Your task to perform on an android device: toggle notifications settings in the gmail app Image 0: 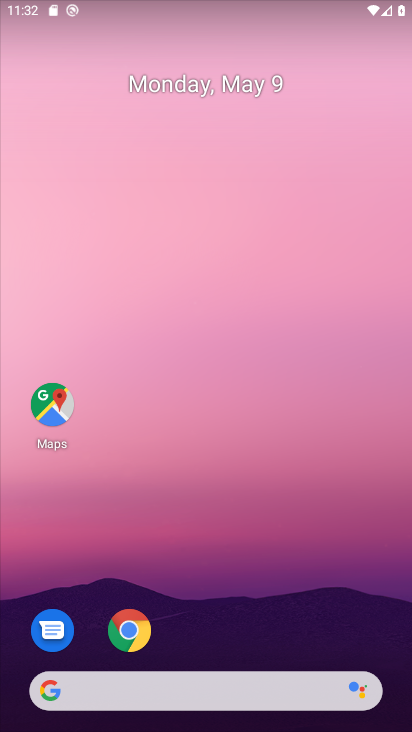
Step 0: drag from (244, 571) to (76, 107)
Your task to perform on an android device: toggle notifications settings in the gmail app Image 1: 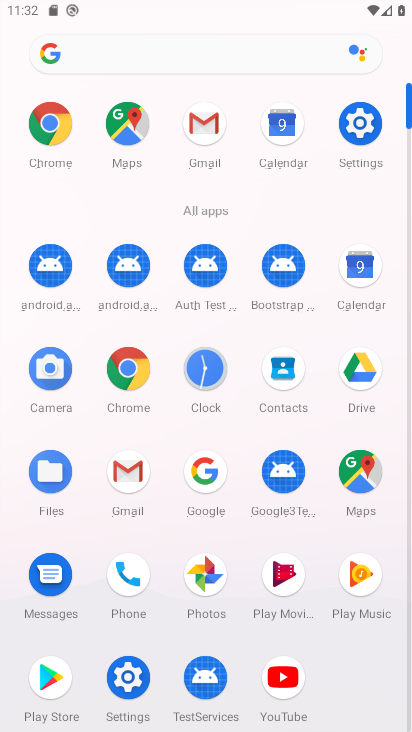
Step 1: click (201, 131)
Your task to perform on an android device: toggle notifications settings in the gmail app Image 2: 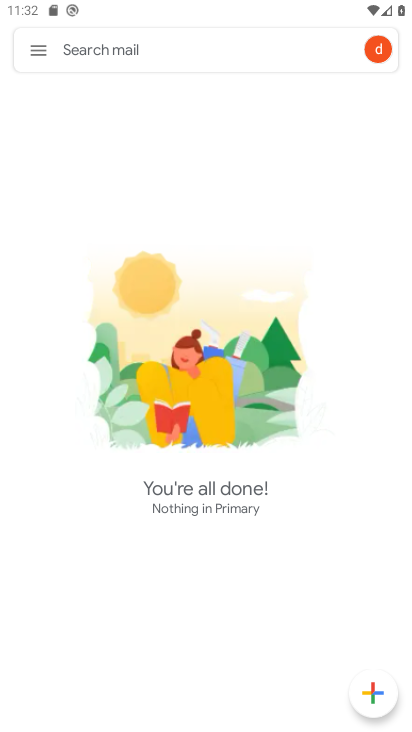
Step 2: click (38, 47)
Your task to perform on an android device: toggle notifications settings in the gmail app Image 3: 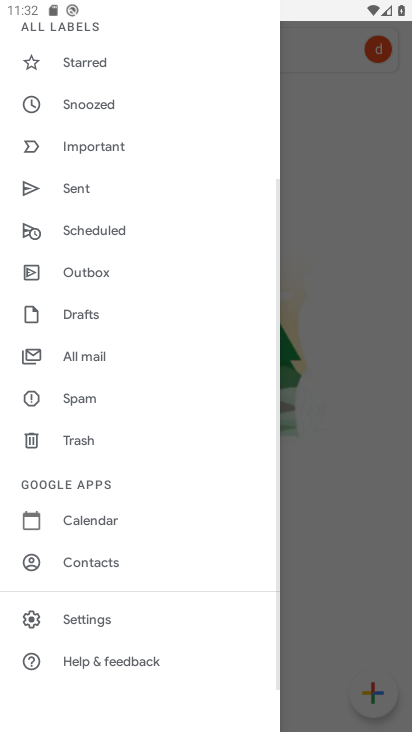
Step 3: click (86, 616)
Your task to perform on an android device: toggle notifications settings in the gmail app Image 4: 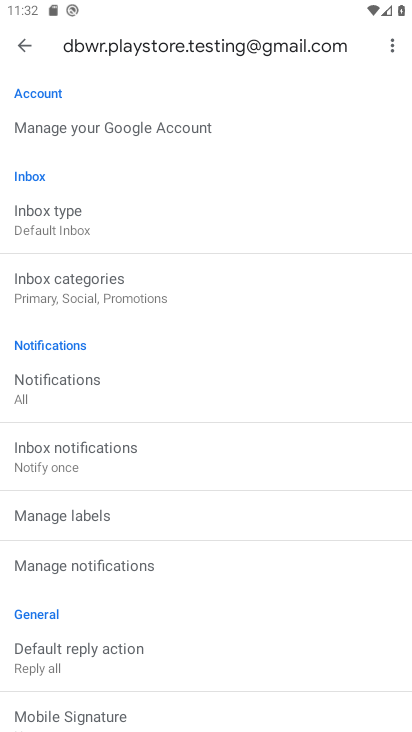
Step 4: click (100, 563)
Your task to perform on an android device: toggle notifications settings in the gmail app Image 5: 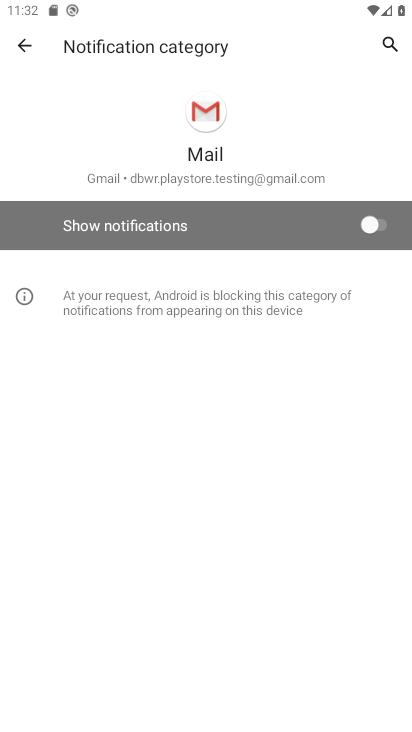
Step 5: click (381, 220)
Your task to perform on an android device: toggle notifications settings in the gmail app Image 6: 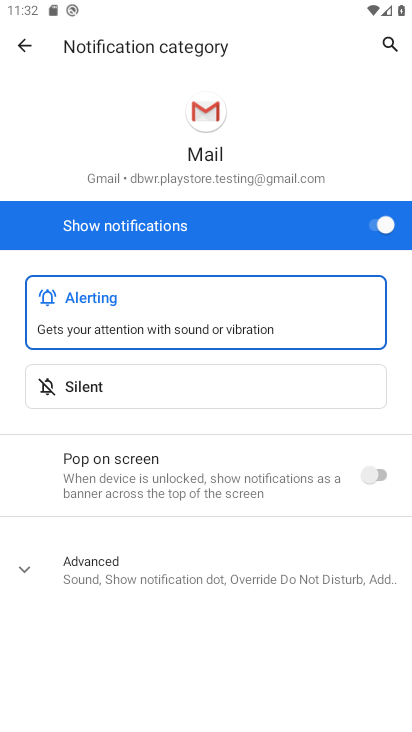
Step 6: task complete